Your task to perform on an android device: install app "Google Calendar" Image 0: 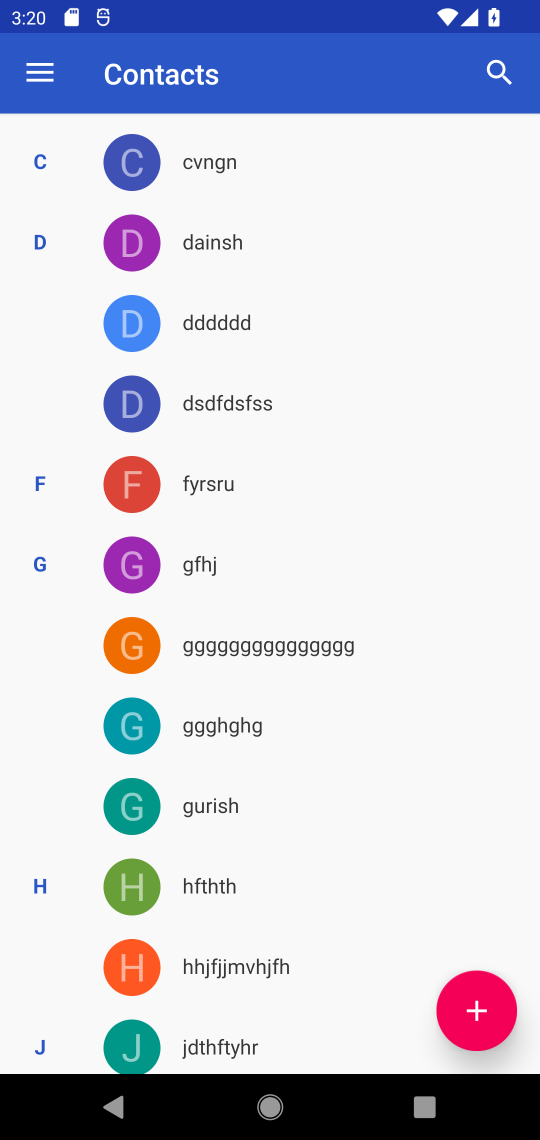
Step 0: press home button
Your task to perform on an android device: install app "Google Calendar" Image 1: 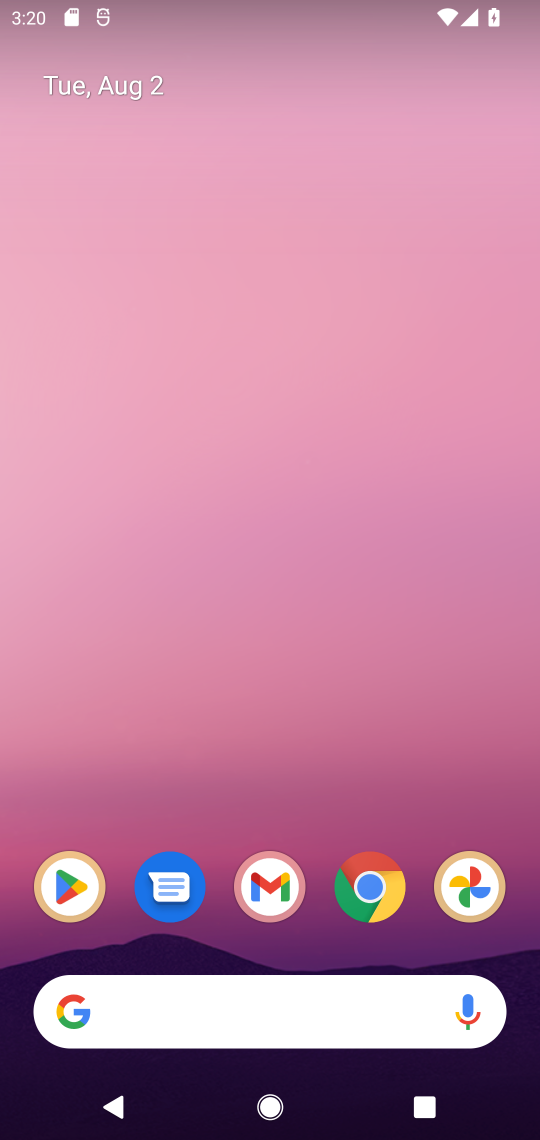
Step 1: task complete